Your task to perform on an android device: refresh tabs in the chrome app Image 0: 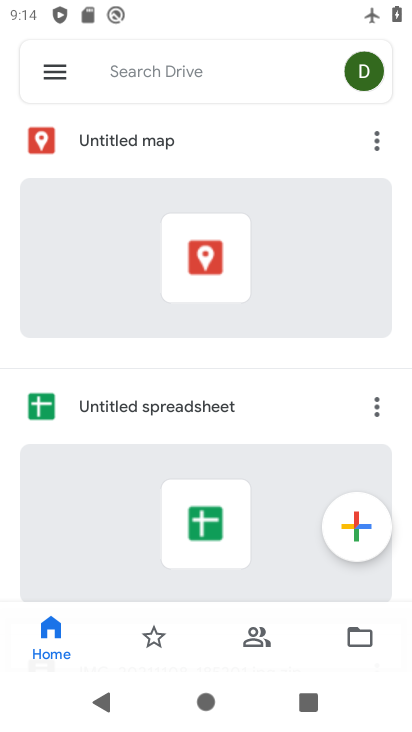
Step 0: press home button
Your task to perform on an android device: refresh tabs in the chrome app Image 1: 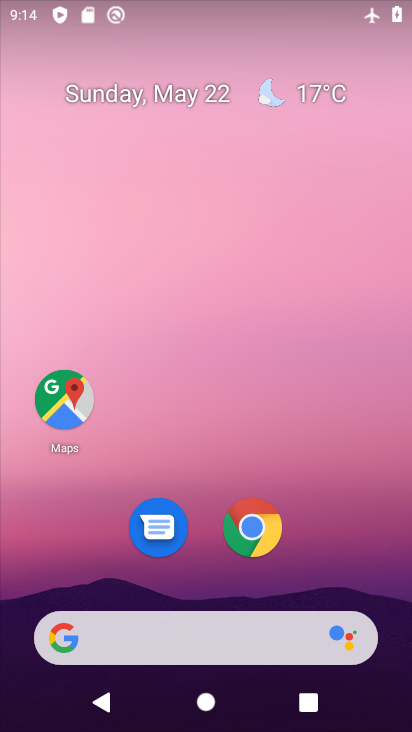
Step 1: click (249, 527)
Your task to perform on an android device: refresh tabs in the chrome app Image 2: 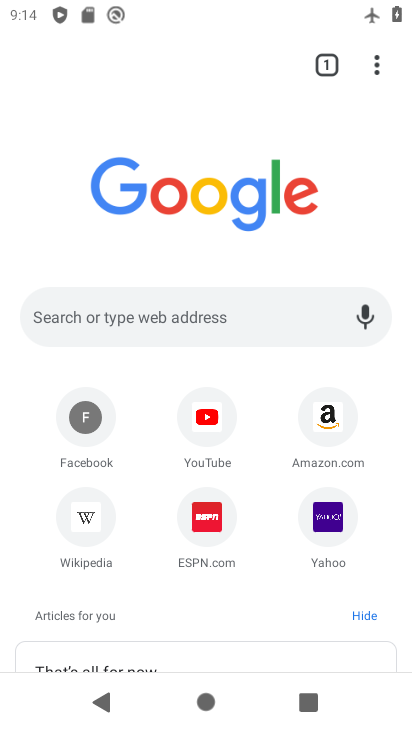
Step 2: click (370, 66)
Your task to perform on an android device: refresh tabs in the chrome app Image 3: 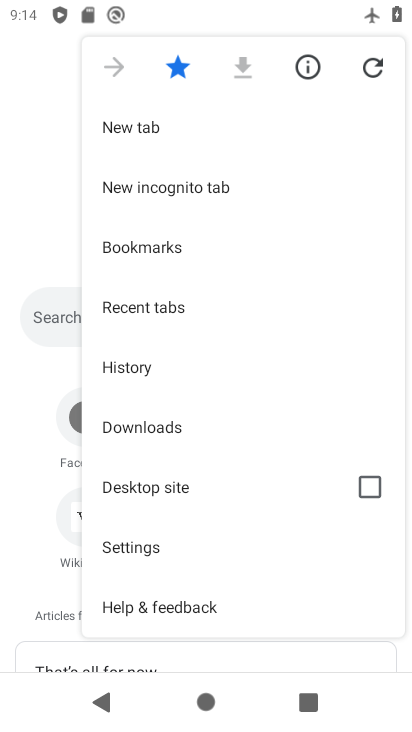
Step 3: click (372, 64)
Your task to perform on an android device: refresh tabs in the chrome app Image 4: 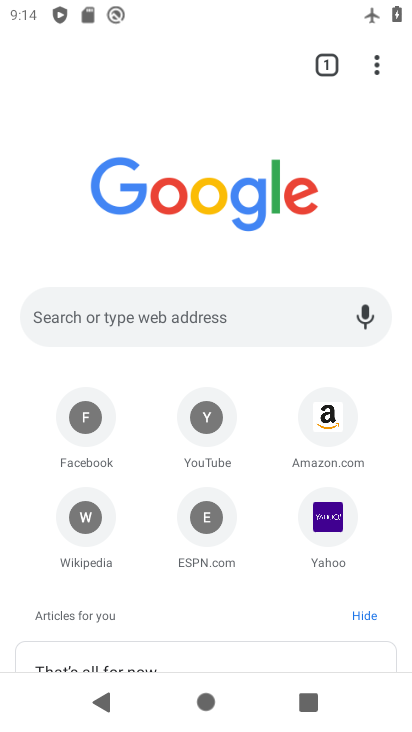
Step 4: task complete